Your task to perform on an android device: toggle improve location accuracy Image 0: 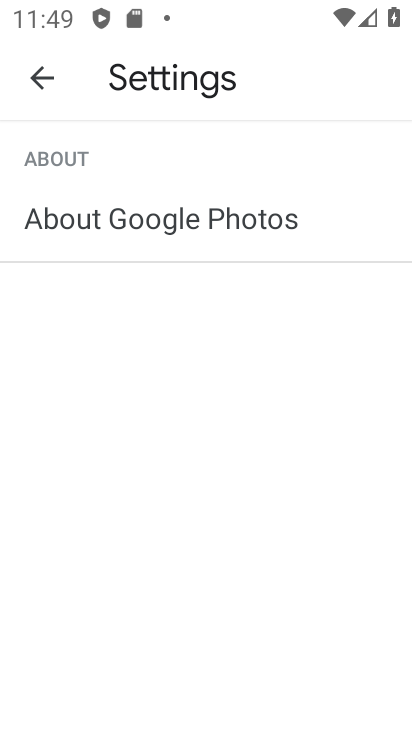
Step 0: press home button
Your task to perform on an android device: toggle improve location accuracy Image 1: 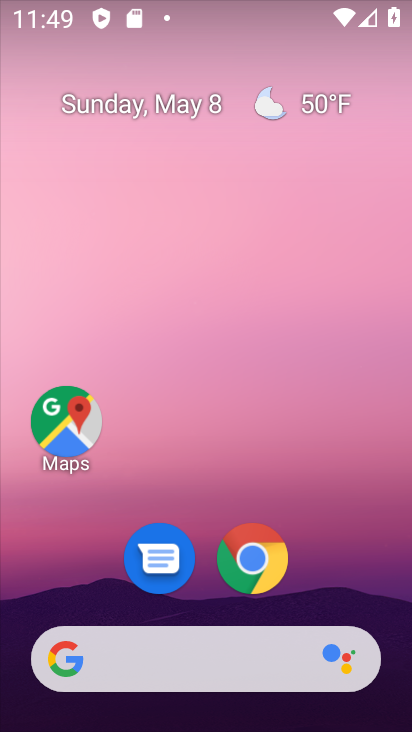
Step 1: drag from (223, 638) to (279, 275)
Your task to perform on an android device: toggle improve location accuracy Image 2: 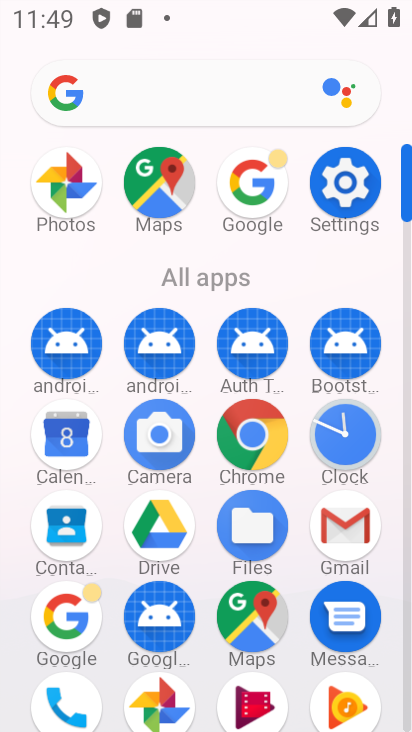
Step 2: click (351, 182)
Your task to perform on an android device: toggle improve location accuracy Image 3: 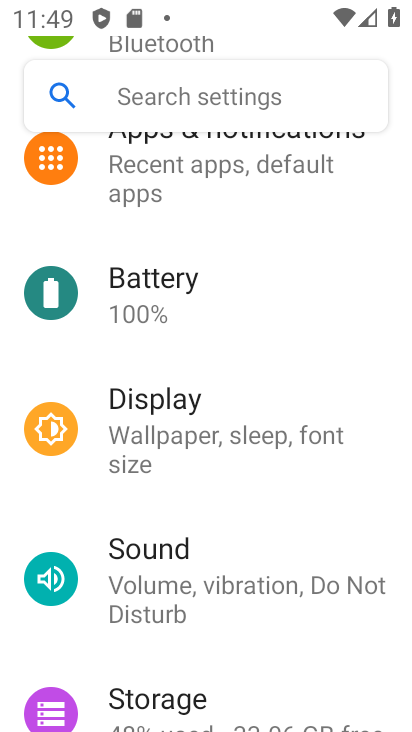
Step 3: drag from (238, 553) to (288, 71)
Your task to perform on an android device: toggle improve location accuracy Image 4: 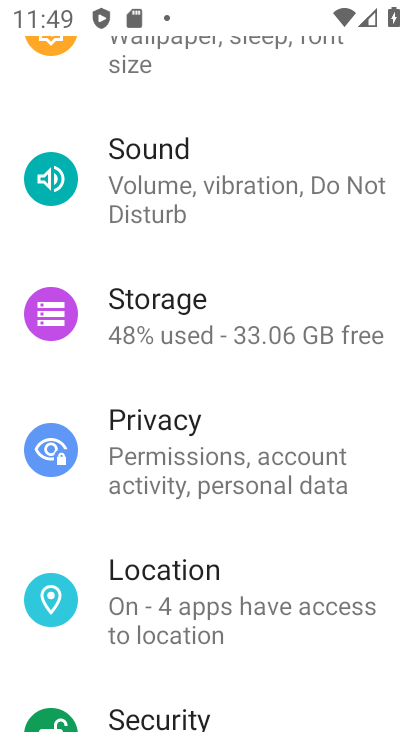
Step 4: click (206, 558)
Your task to perform on an android device: toggle improve location accuracy Image 5: 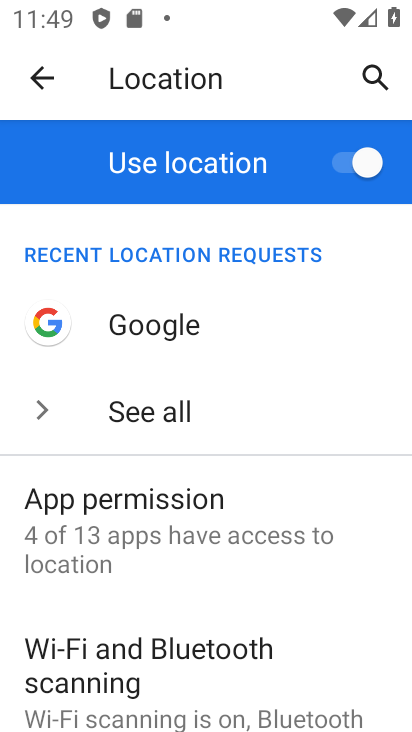
Step 5: drag from (238, 616) to (242, 2)
Your task to perform on an android device: toggle improve location accuracy Image 6: 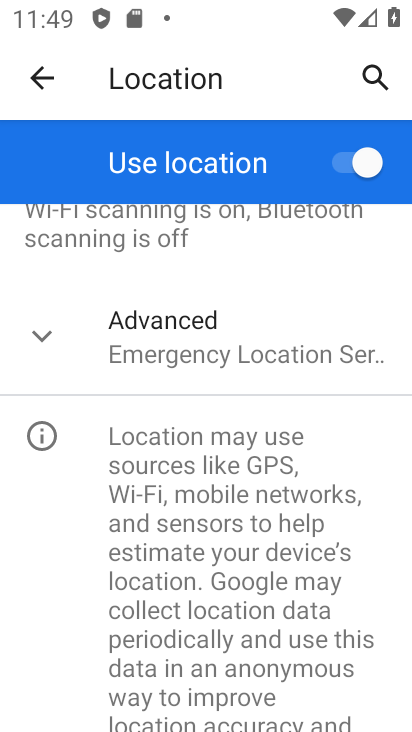
Step 6: click (282, 330)
Your task to perform on an android device: toggle improve location accuracy Image 7: 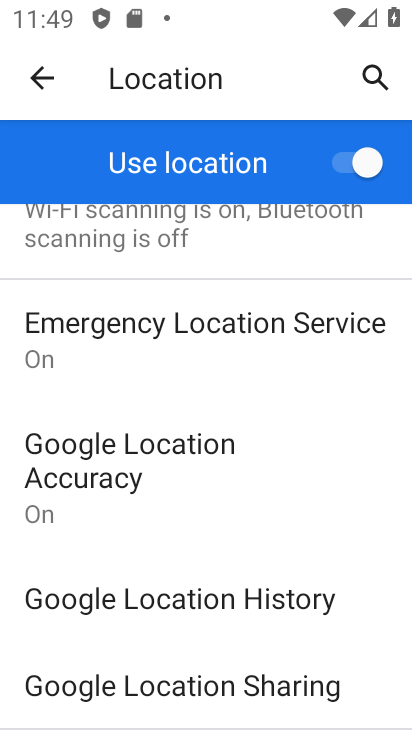
Step 7: click (160, 490)
Your task to perform on an android device: toggle improve location accuracy Image 8: 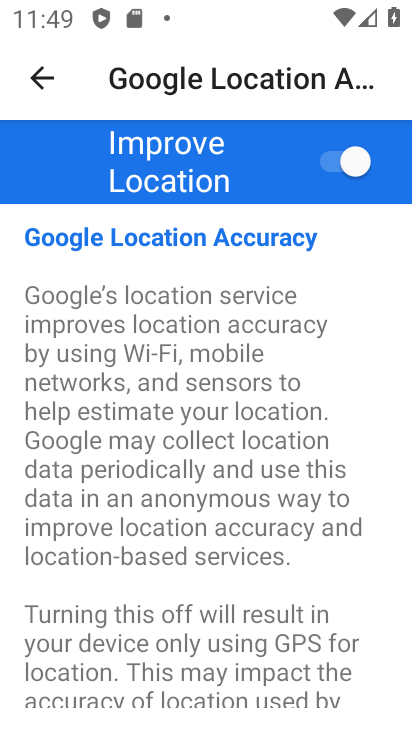
Step 8: click (351, 185)
Your task to perform on an android device: toggle improve location accuracy Image 9: 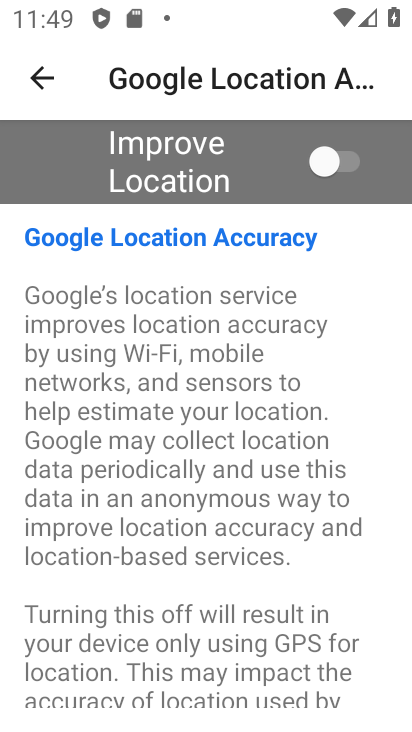
Step 9: task complete